Your task to perform on an android device: Clear the cart on costco. Add "logitech g pro" to the cart on costco Image 0: 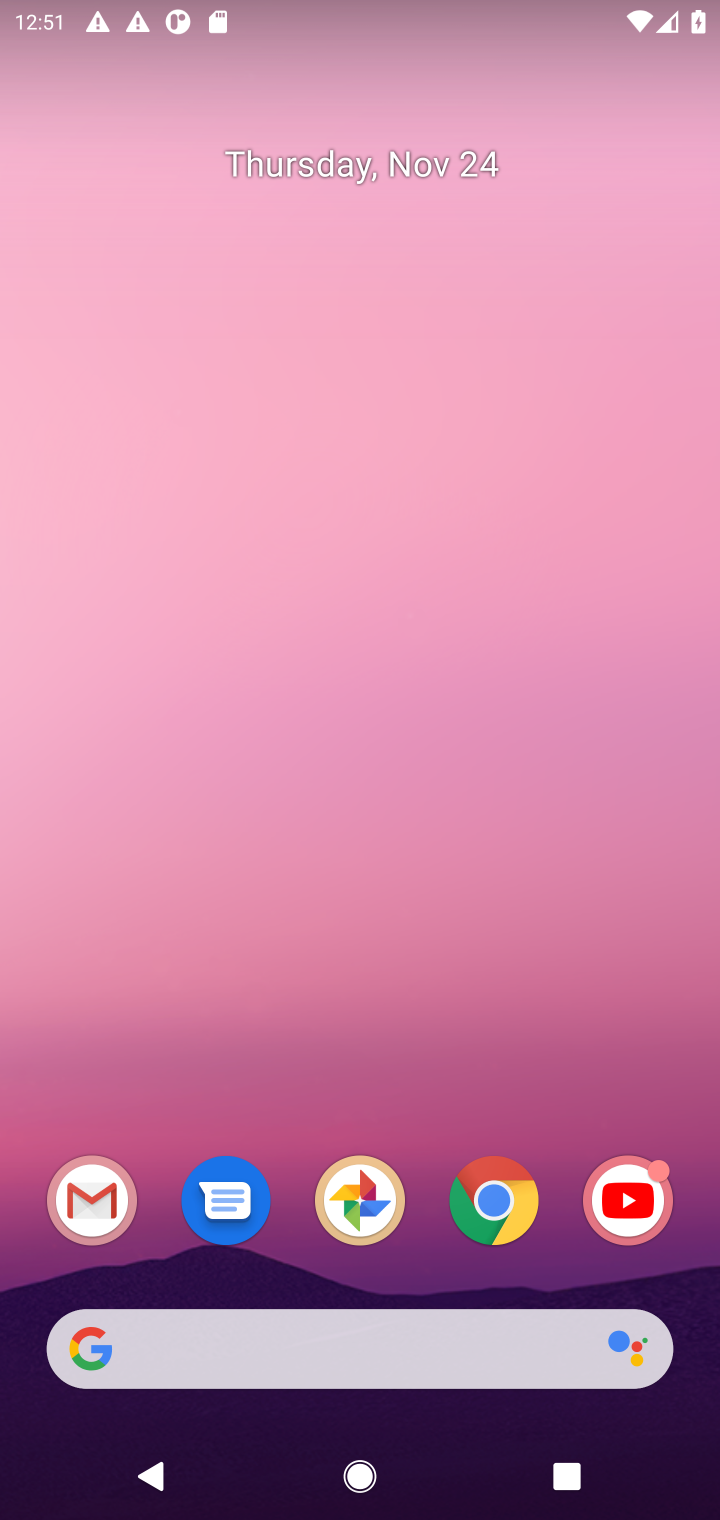
Step 0: click (487, 1180)
Your task to perform on an android device: Clear the cart on costco. Add "logitech g pro" to the cart on costco Image 1: 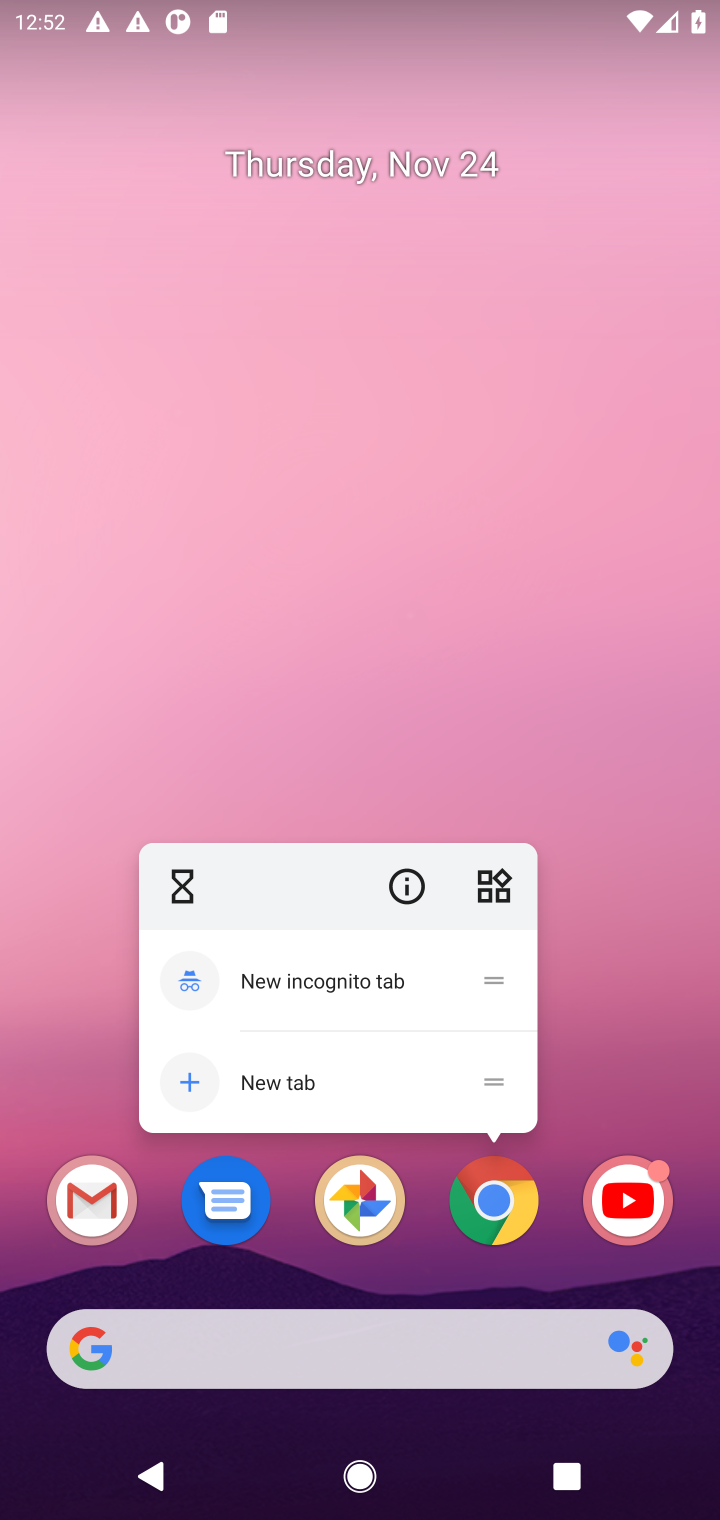
Step 1: click (487, 1180)
Your task to perform on an android device: Clear the cart on costco. Add "logitech g pro" to the cart on costco Image 2: 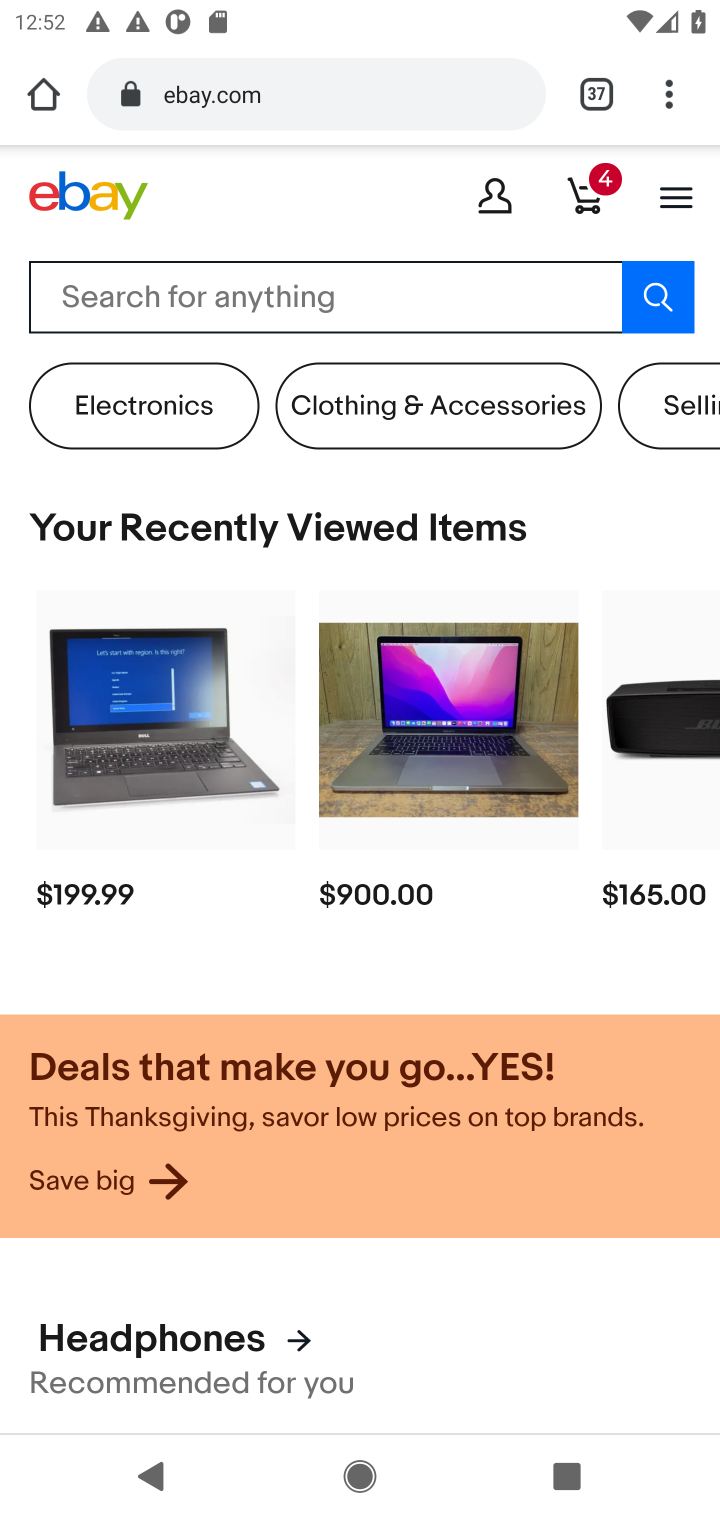
Step 2: click (379, 322)
Your task to perform on an android device: Clear the cart on costco. Add "logitech g pro" to the cart on costco Image 3: 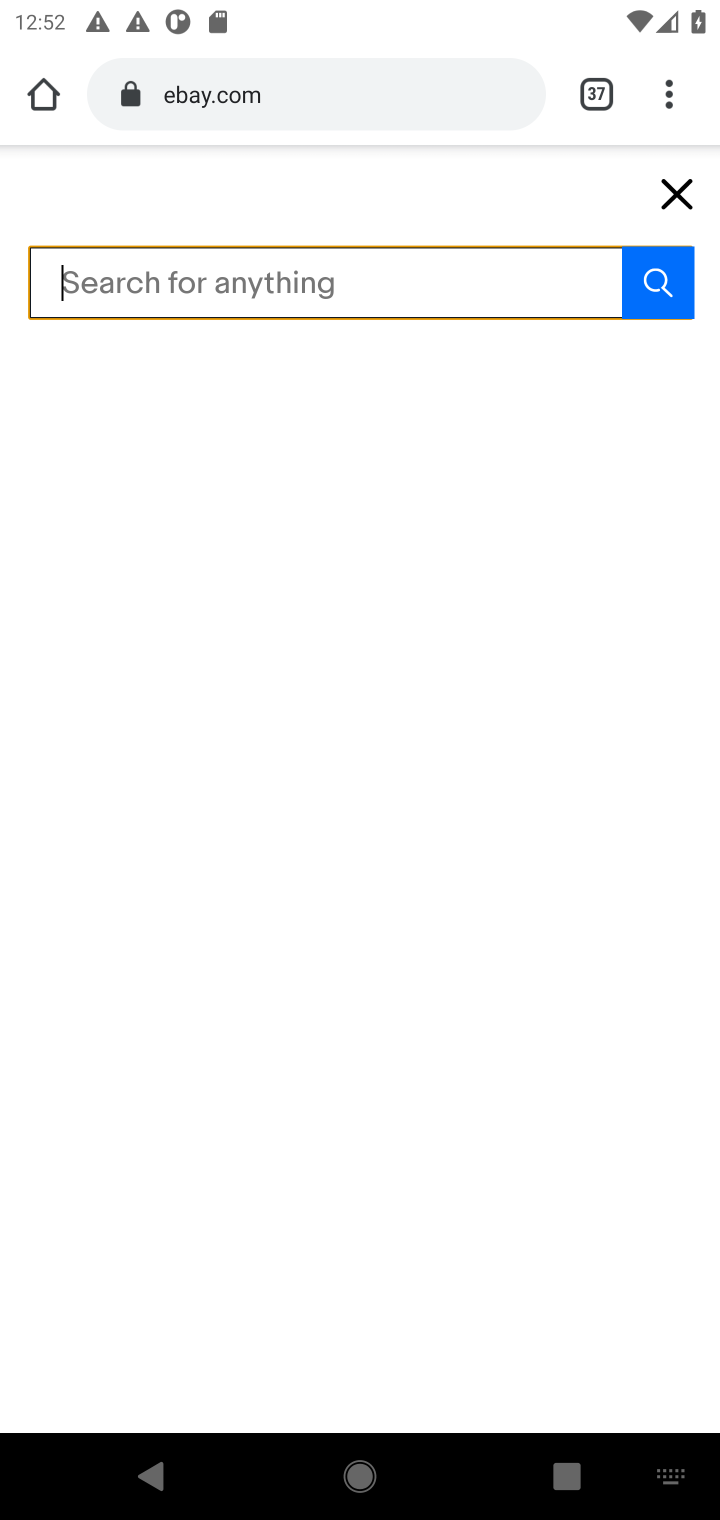
Step 3: task complete